Your task to perform on an android device: Go to network settings Image 0: 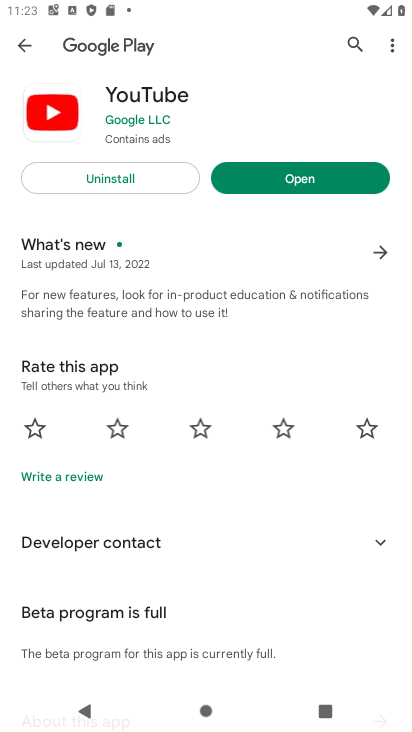
Step 0: drag from (203, 10) to (229, 528)
Your task to perform on an android device: Go to network settings Image 1: 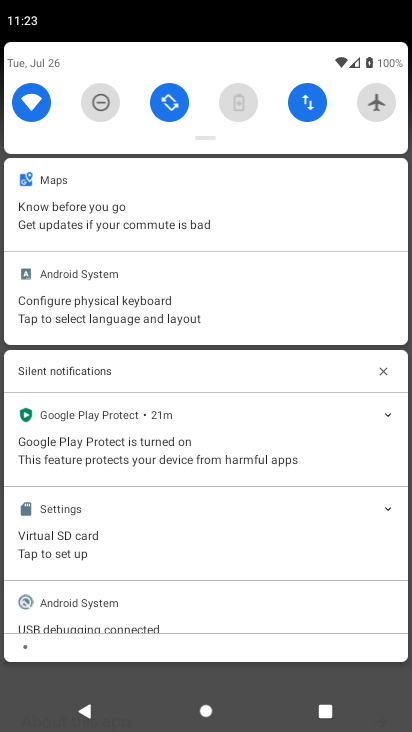
Step 1: click (292, 104)
Your task to perform on an android device: Go to network settings Image 2: 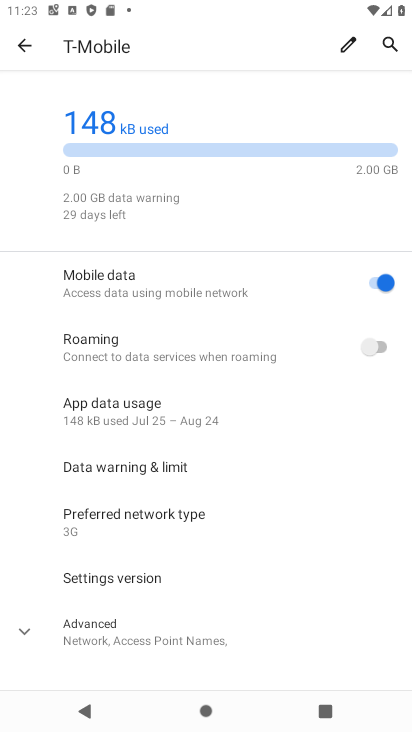
Step 2: task complete